Your task to perform on an android device: turn off smart reply in the gmail app Image 0: 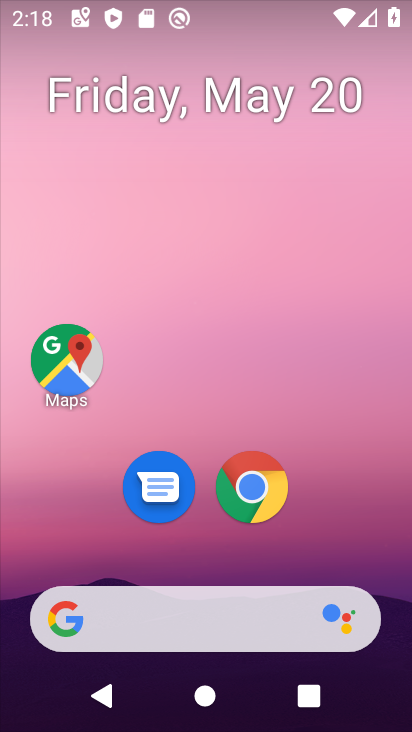
Step 0: drag from (410, 524) to (407, 76)
Your task to perform on an android device: turn off smart reply in the gmail app Image 1: 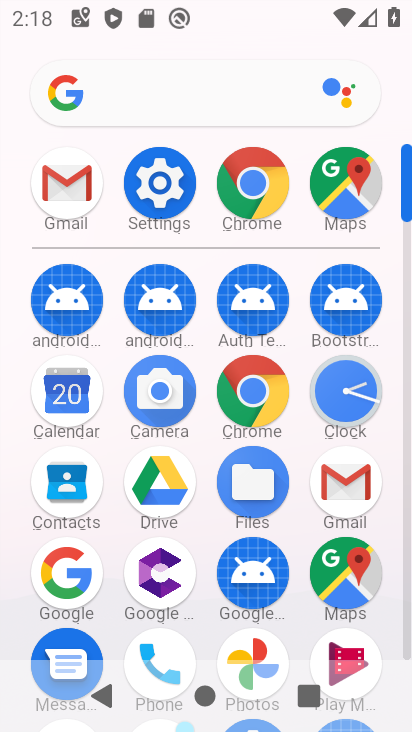
Step 1: click (64, 169)
Your task to perform on an android device: turn off smart reply in the gmail app Image 2: 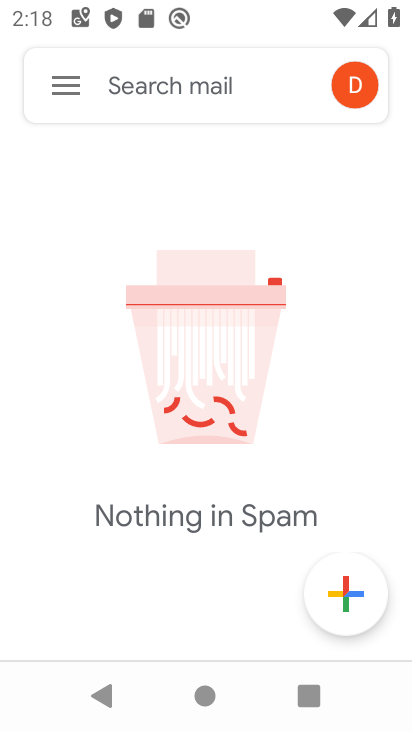
Step 2: click (74, 75)
Your task to perform on an android device: turn off smart reply in the gmail app Image 3: 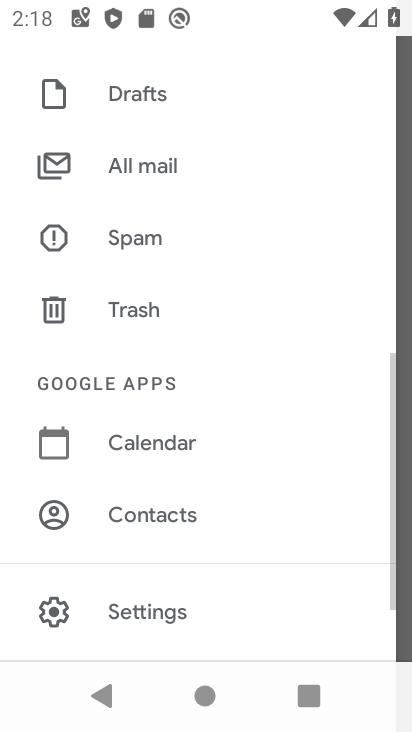
Step 3: click (142, 627)
Your task to perform on an android device: turn off smart reply in the gmail app Image 4: 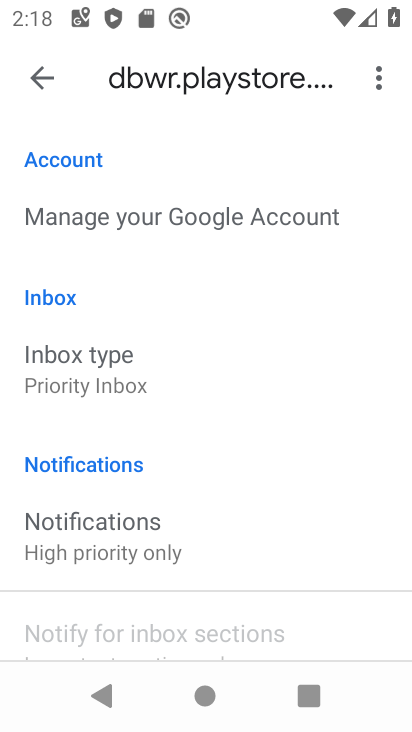
Step 4: drag from (164, 551) to (212, 90)
Your task to perform on an android device: turn off smart reply in the gmail app Image 5: 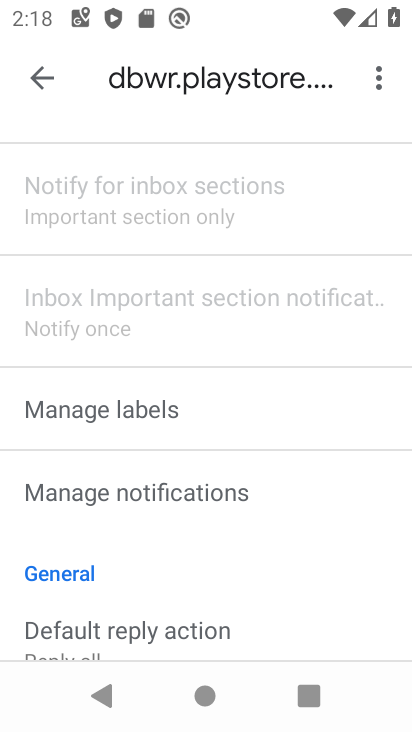
Step 5: drag from (236, 603) to (270, 198)
Your task to perform on an android device: turn off smart reply in the gmail app Image 6: 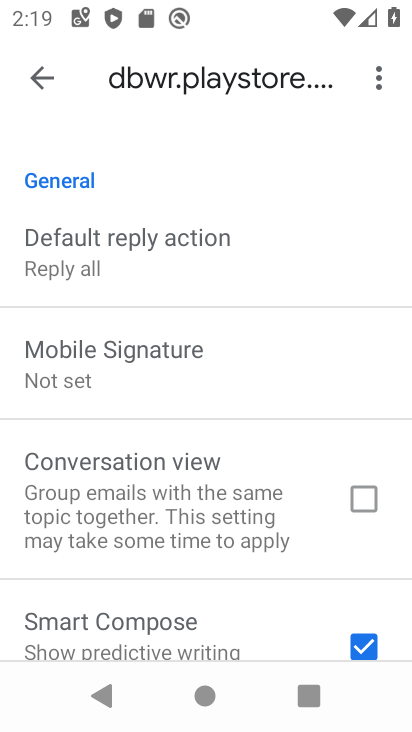
Step 6: drag from (272, 550) to (273, 193)
Your task to perform on an android device: turn off smart reply in the gmail app Image 7: 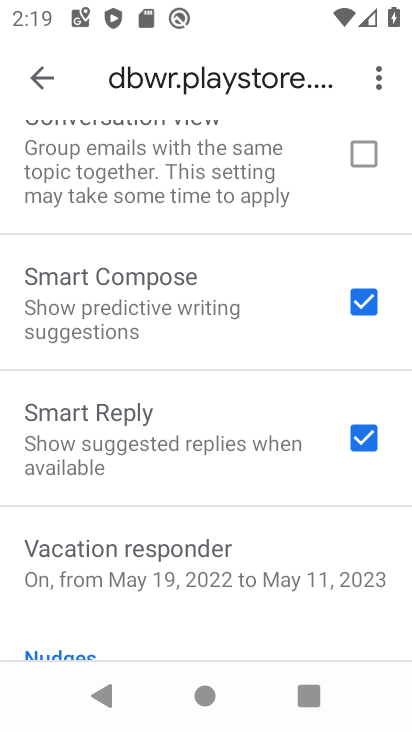
Step 7: click (400, 447)
Your task to perform on an android device: turn off smart reply in the gmail app Image 8: 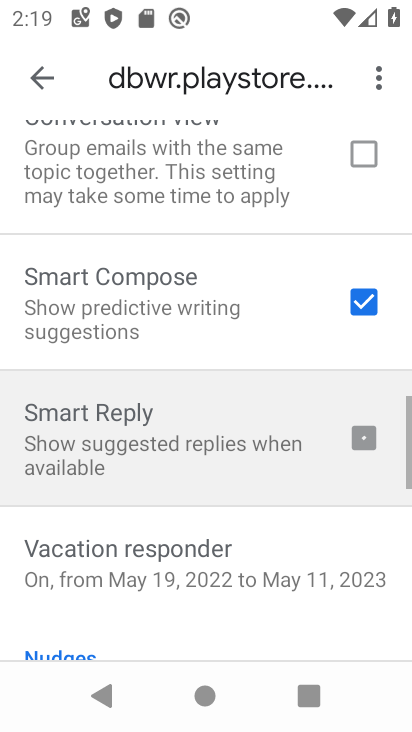
Step 8: click (362, 441)
Your task to perform on an android device: turn off smart reply in the gmail app Image 9: 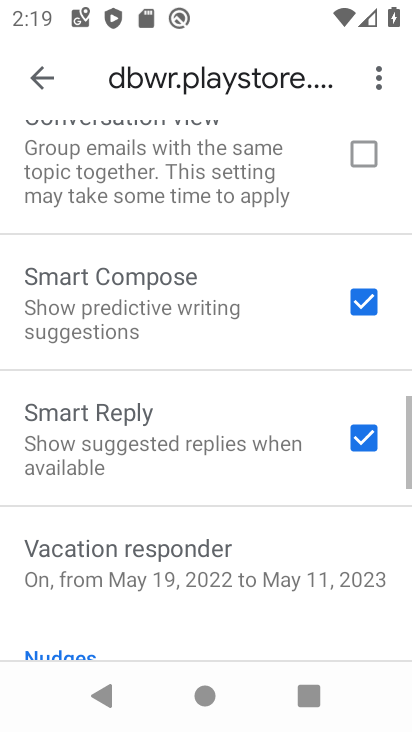
Step 9: task complete